Your task to perform on an android device: add a contact Image 0: 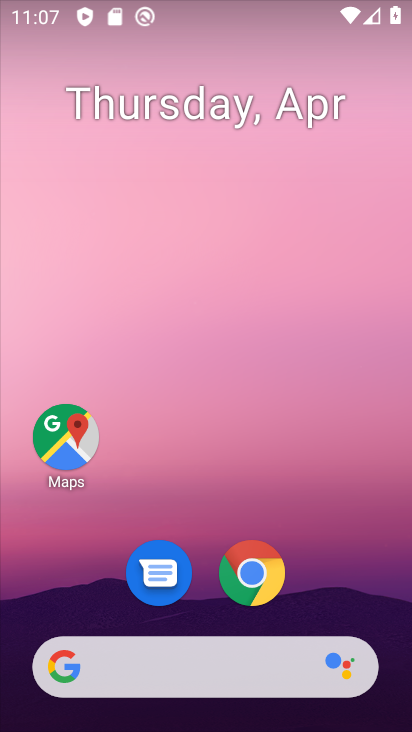
Step 0: drag from (331, 582) to (252, 40)
Your task to perform on an android device: add a contact Image 1: 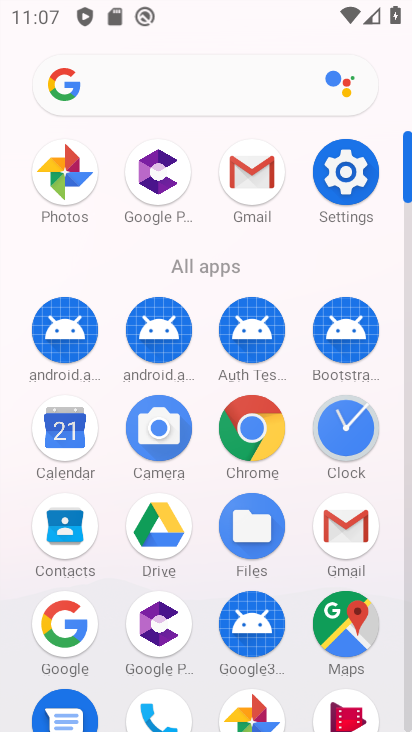
Step 1: click (66, 523)
Your task to perform on an android device: add a contact Image 2: 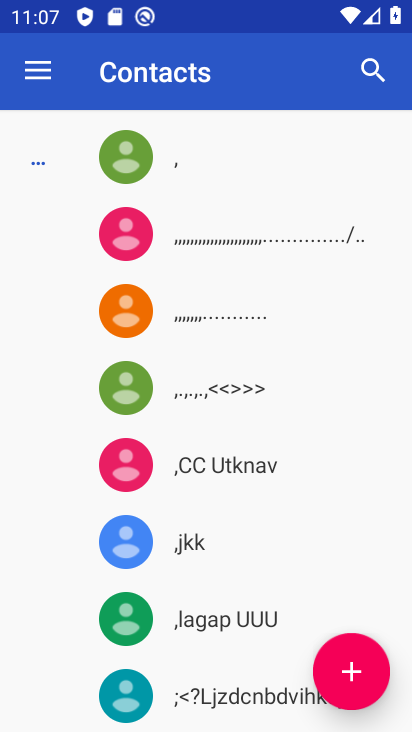
Step 2: click (344, 669)
Your task to perform on an android device: add a contact Image 3: 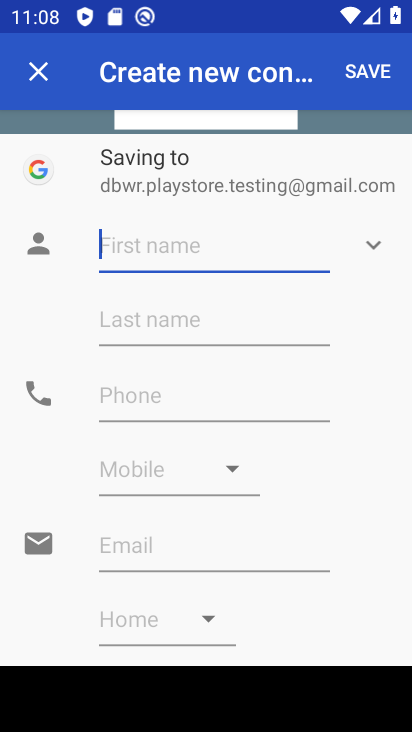
Step 3: type "ertyuu"
Your task to perform on an android device: add a contact Image 4: 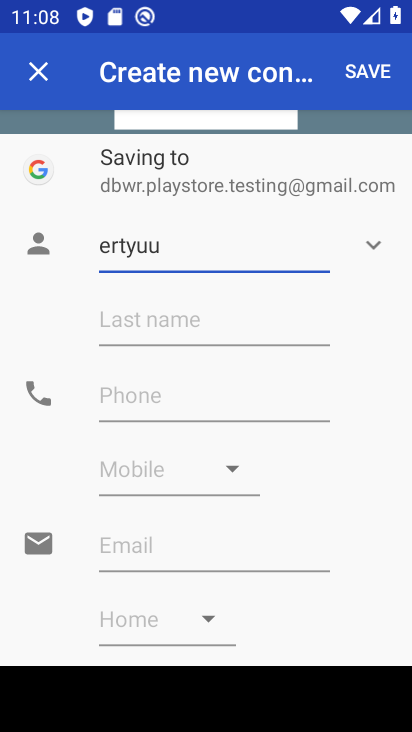
Step 4: click (181, 383)
Your task to perform on an android device: add a contact Image 5: 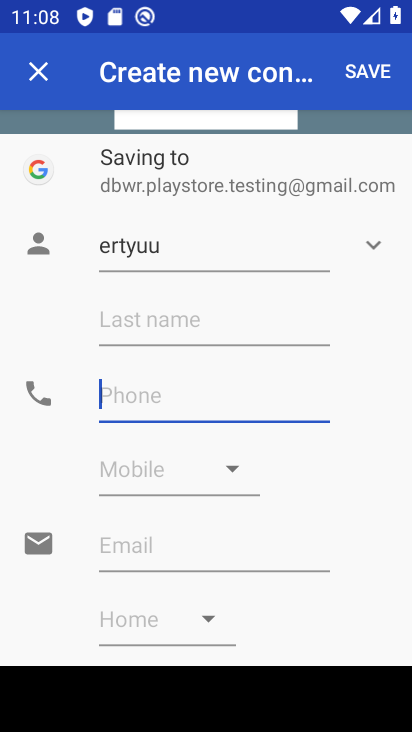
Step 5: type "367874787"
Your task to perform on an android device: add a contact Image 6: 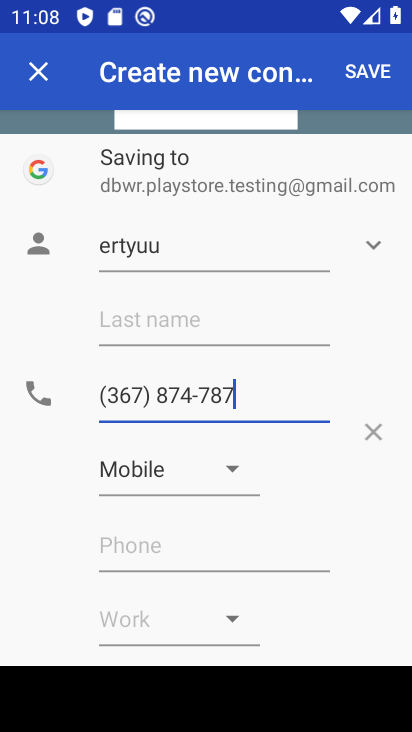
Step 6: click (377, 67)
Your task to perform on an android device: add a contact Image 7: 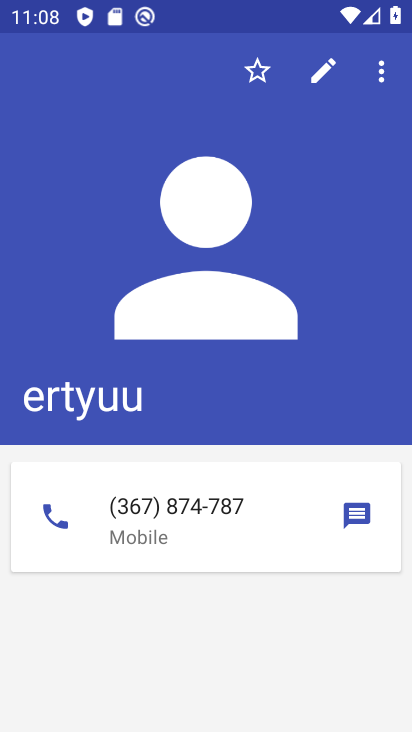
Step 7: task complete